Your task to perform on an android device: delete the emails in spam in the gmail app Image 0: 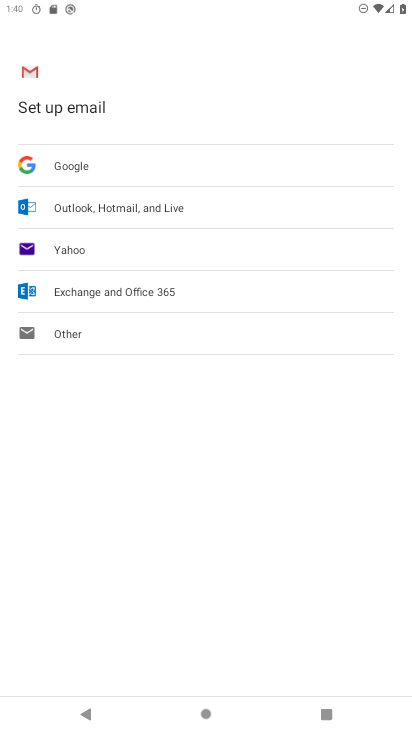
Step 0: press home button
Your task to perform on an android device: delete the emails in spam in the gmail app Image 1: 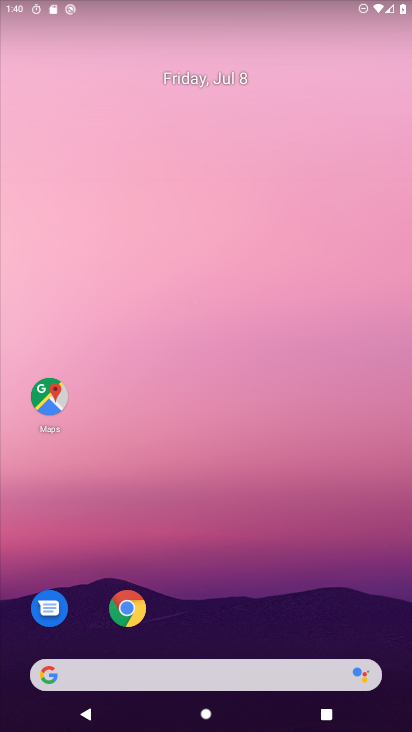
Step 1: drag from (241, 713) to (241, 106)
Your task to perform on an android device: delete the emails in spam in the gmail app Image 2: 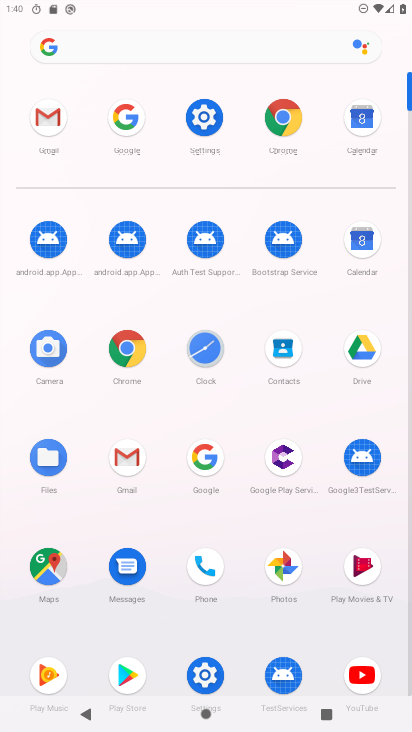
Step 2: click (130, 459)
Your task to perform on an android device: delete the emails in spam in the gmail app Image 3: 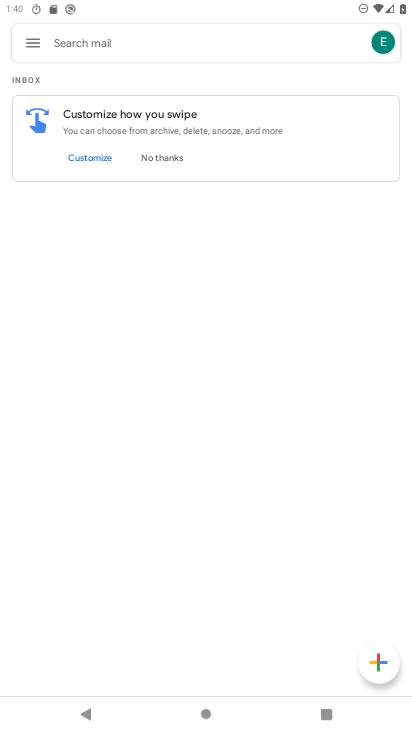
Step 3: task complete